Your task to perform on an android device: allow notifications from all sites in the chrome app Image 0: 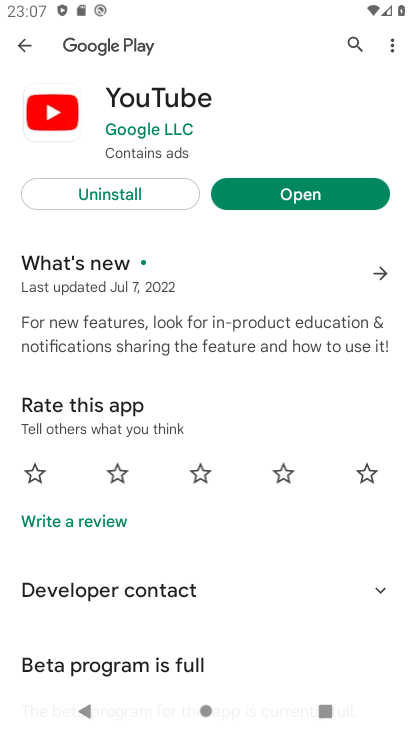
Step 0: press home button
Your task to perform on an android device: allow notifications from all sites in the chrome app Image 1: 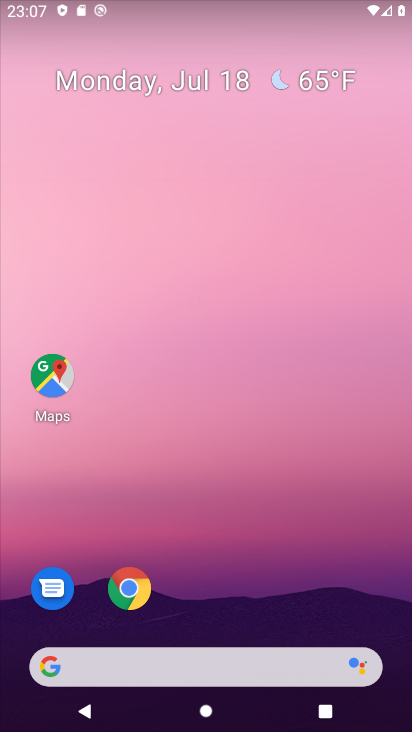
Step 1: click (139, 581)
Your task to perform on an android device: allow notifications from all sites in the chrome app Image 2: 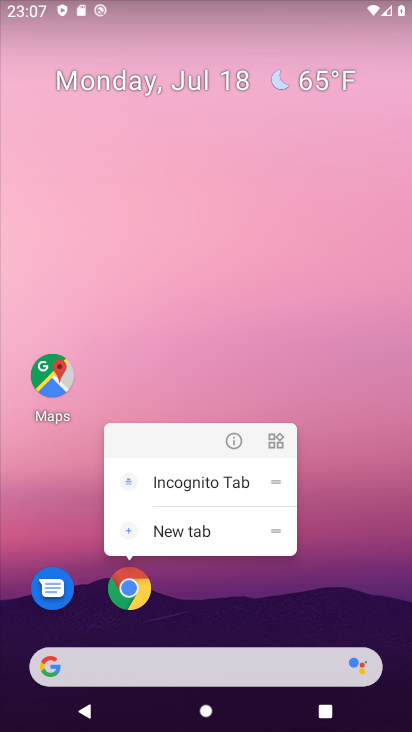
Step 2: click (128, 597)
Your task to perform on an android device: allow notifications from all sites in the chrome app Image 3: 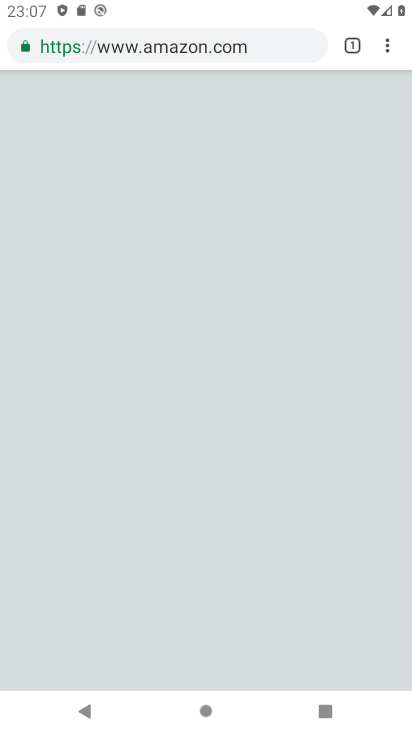
Step 3: drag from (394, 49) to (228, 556)
Your task to perform on an android device: allow notifications from all sites in the chrome app Image 4: 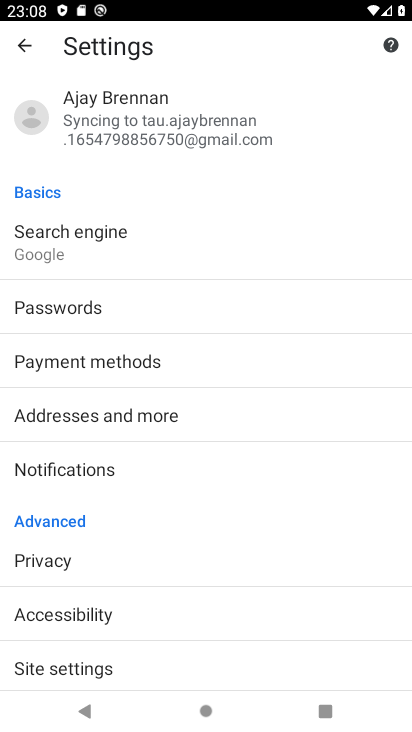
Step 4: click (50, 664)
Your task to perform on an android device: allow notifications from all sites in the chrome app Image 5: 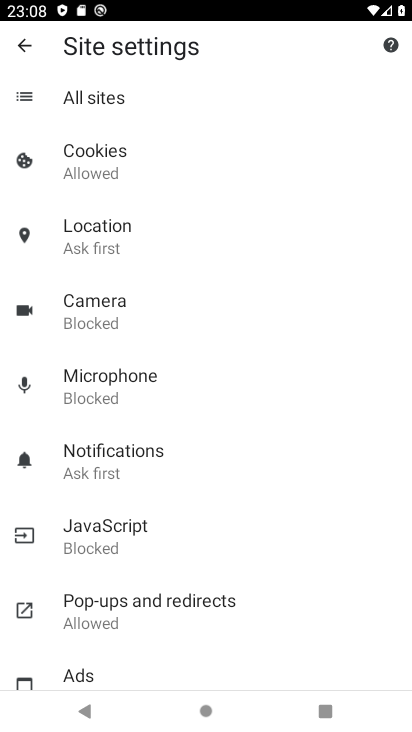
Step 5: click (128, 460)
Your task to perform on an android device: allow notifications from all sites in the chrome app Image 6: 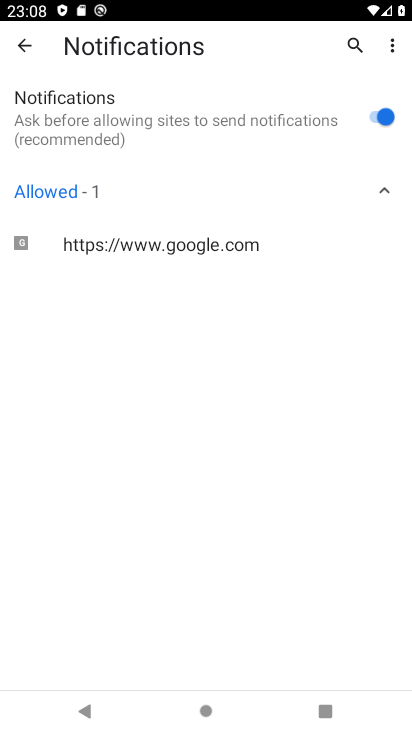
Step 6: task complete